Your task to perform on an android device: toggle wifi Image 0: 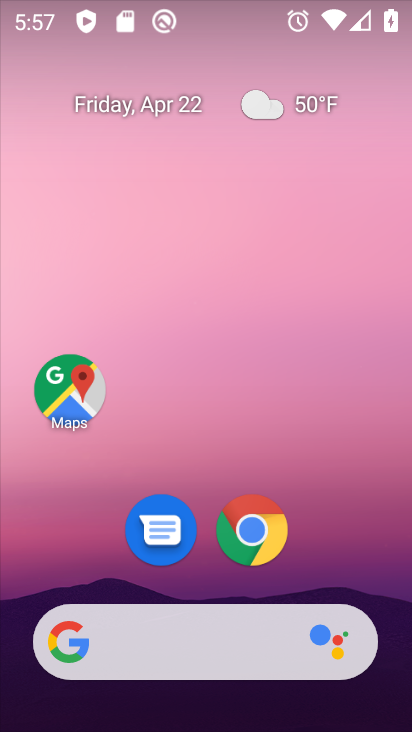
Step 0: drag from (183, 5) to (176, 184)
Your task to perform on an android device: toggle wifi Image 1: 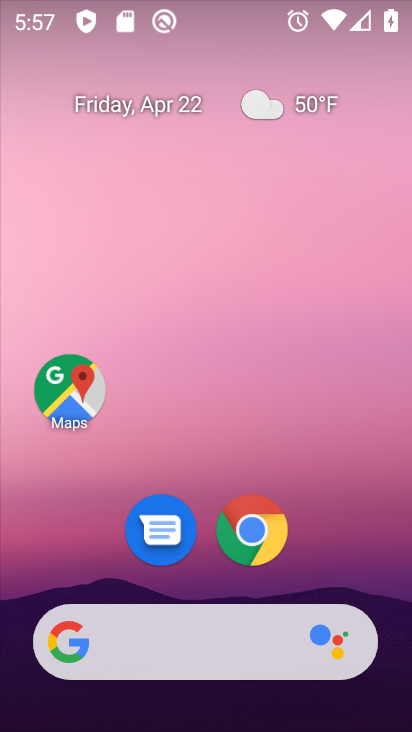
Step 1: drag from (240, 0) to (228, 306)
Your task to perform on an android device: toggle wifi Image 2: 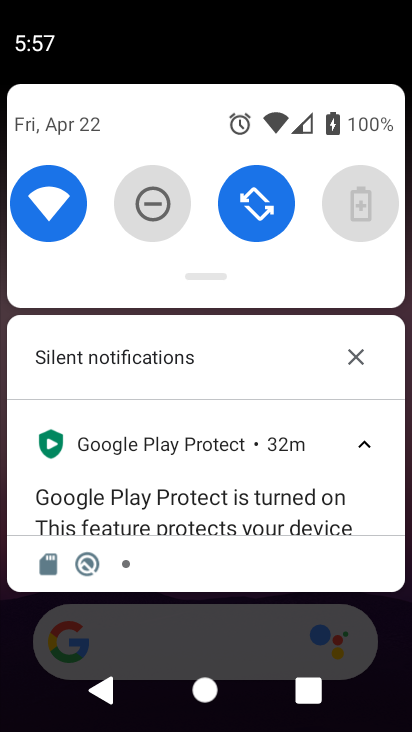
Step 2: drag from (223, 255) to (224, 351)
Your task to perform on an android device: toggle wifi Image 3: 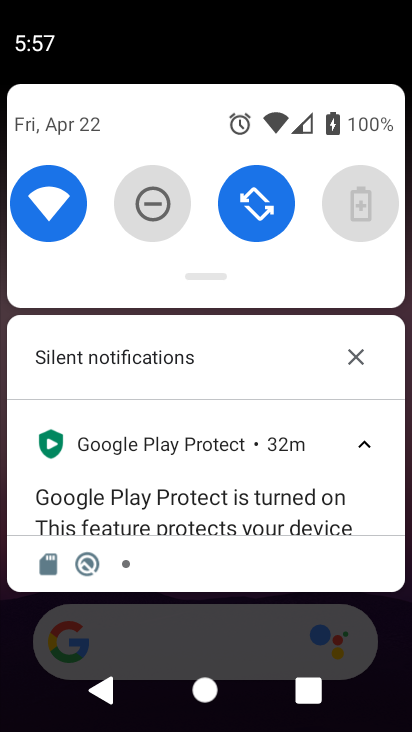
Step 3: drag from (203, 211) to (218, 473)
Your task to perform on an android device: toggle wifi Image 4: 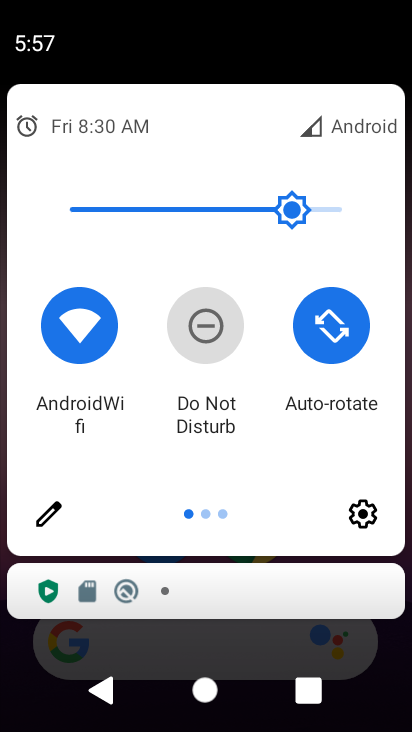
Step 4: drag from (383, 333) to (0, 305)
Your task to perform on an android device: toggle wifi Image 5: 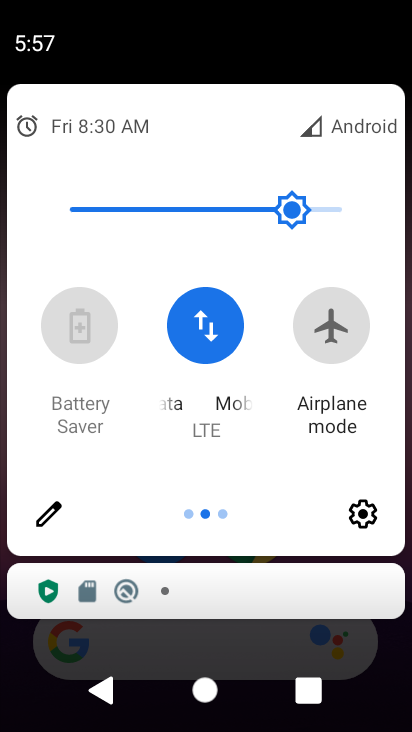
Step 5: drag from (17, 273) to (394, 309)
Your task to perform on an android device: toggle wifi Image 6: 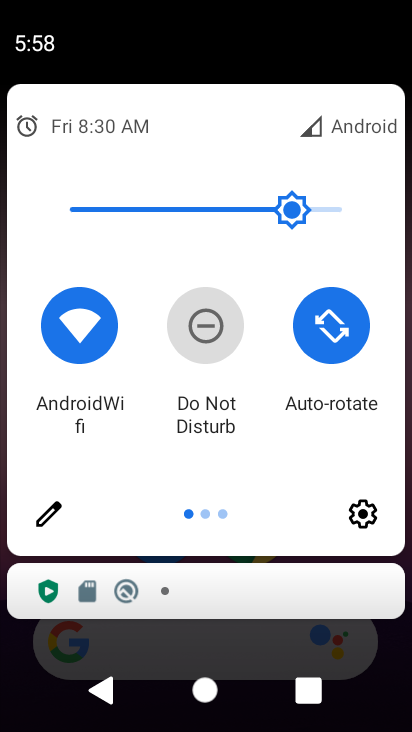
Step 6: click (79, 303)
Your task to perform on an android device: toggle wifi Image 7: 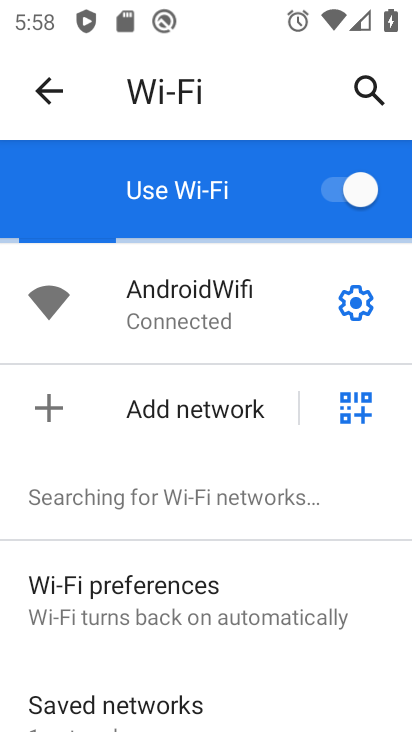
Step 7: click (324, 185)
Your task to perform on an android device: toggle wifi Image 8: 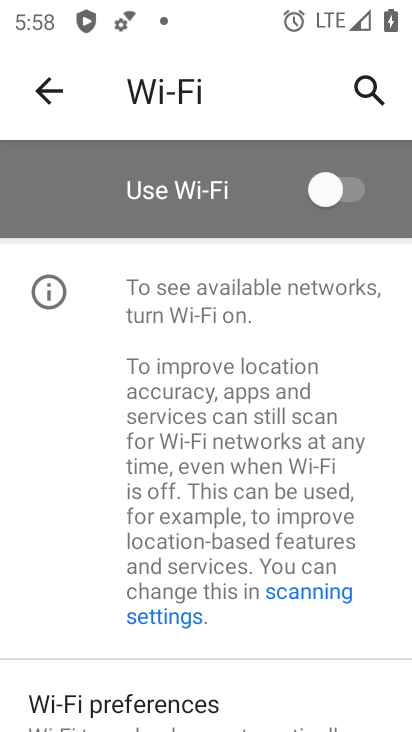
Step 8: task complete